Your task to perform on an android device: turn off javascript in the chrome app Image 0: 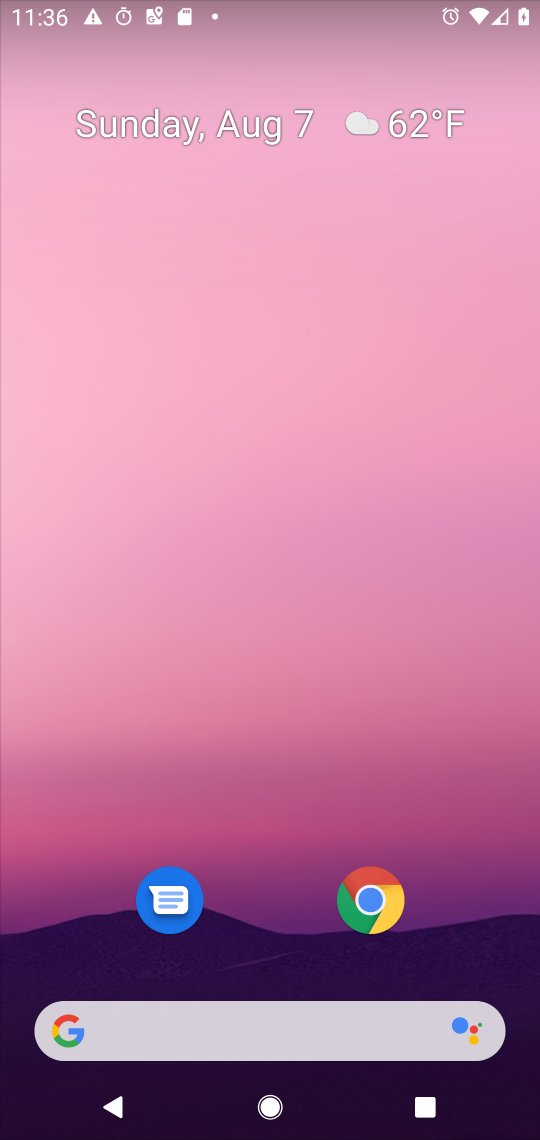
Step 0: press home button
Your task to perform on an android device: turn off javascript in the chrome app Image 1: 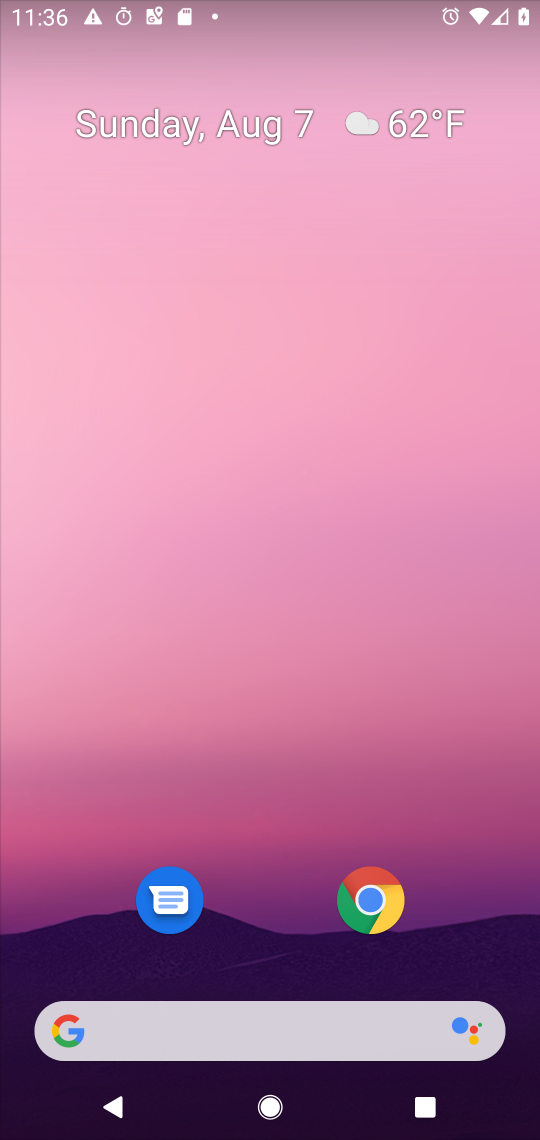
Step 1: press home button
Your task to perform on an android device: turn off javascript in the chrome app Image 2: 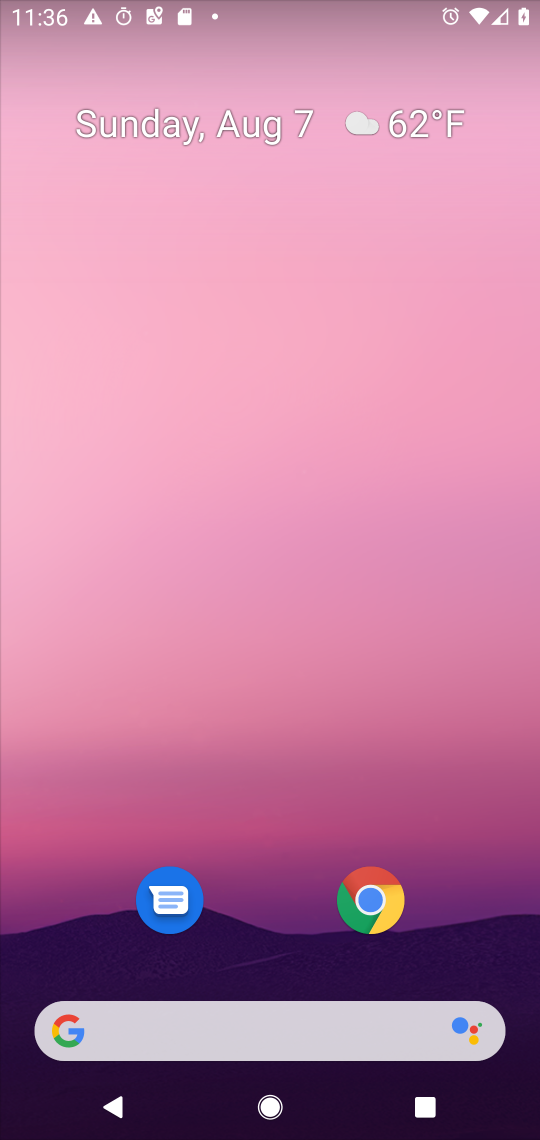
Step 2: click (388, 887)
Your task to perform on an android device: turn off javascript in the chrome app Image 3: 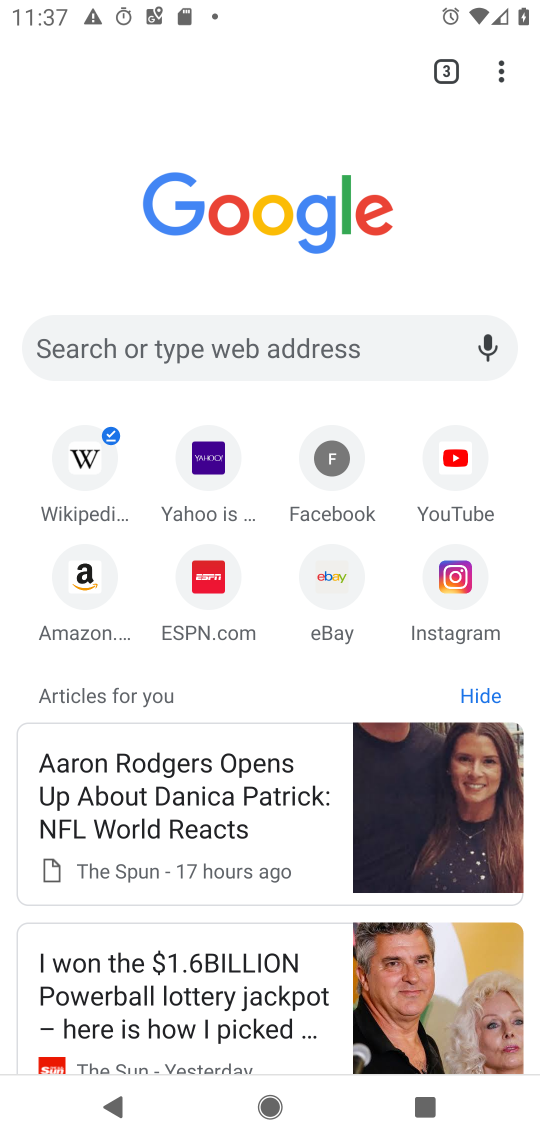
Step 3: click (495, 59)
Your task to perform on an android device: turn off javascript in the chrome app Image 4: 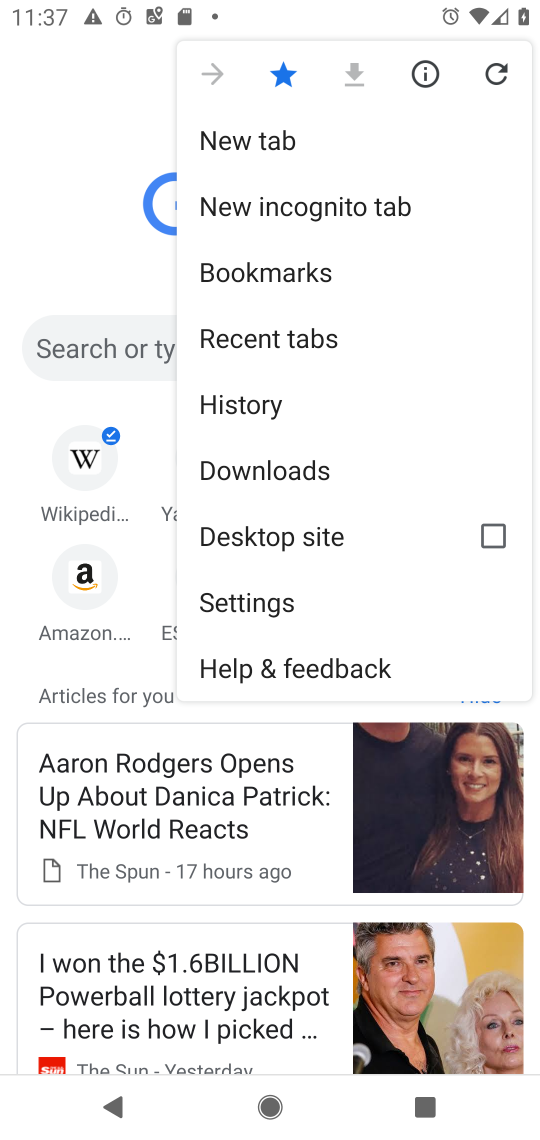
Step 4: click (281, 606)
Your task to perform on an android device: turn off javascript in the chrome app Image 5: 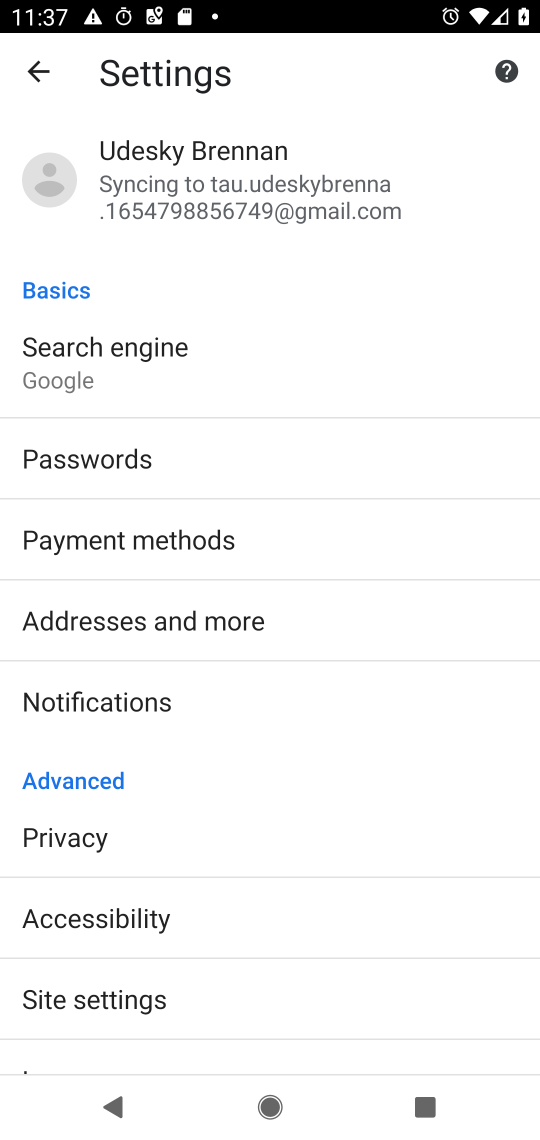
Step 5: drag from (218, 965) to (242, 250)
Your task to perform on an android device: turn off javascript in the chrome app Image 6: 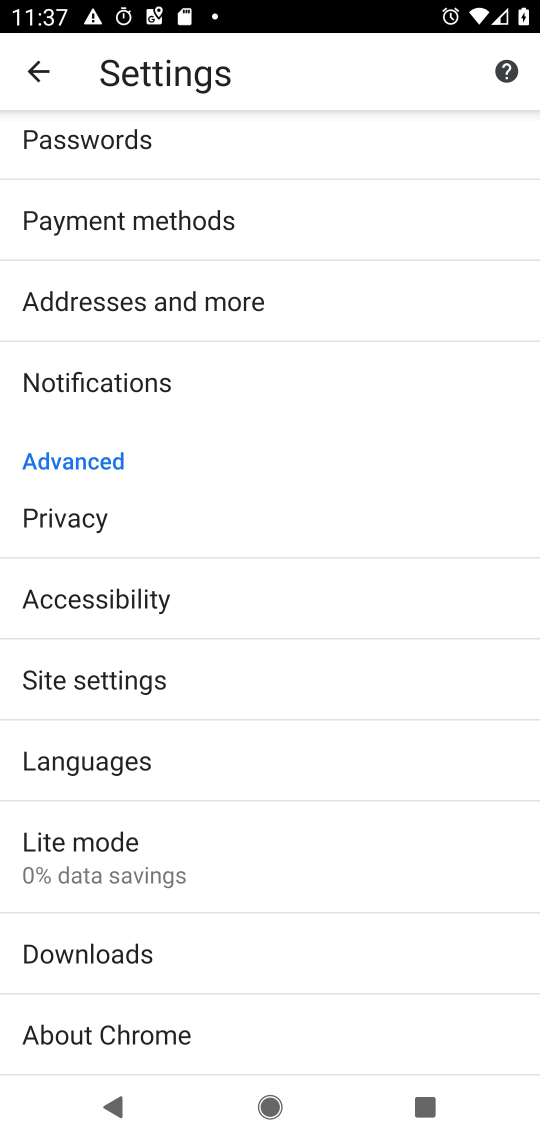
Step 6: click (167, 675)
Your task to perform on an android device: turn off javascript in the chrome app Image 7: 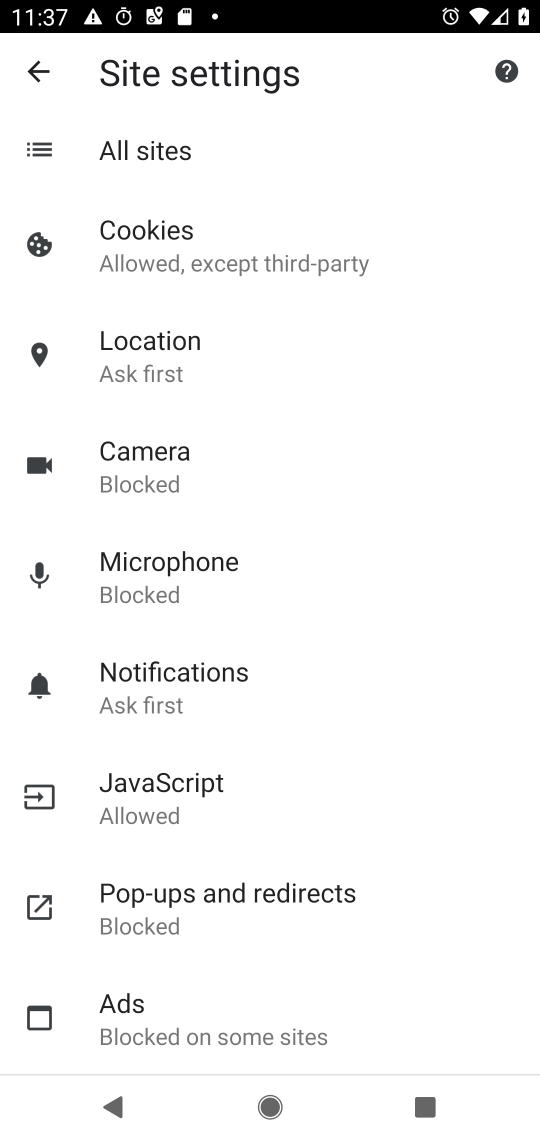
Step 7: click (185, 804)
Your task to perform on an android device: turn off javascript in the chrome app Image 8: 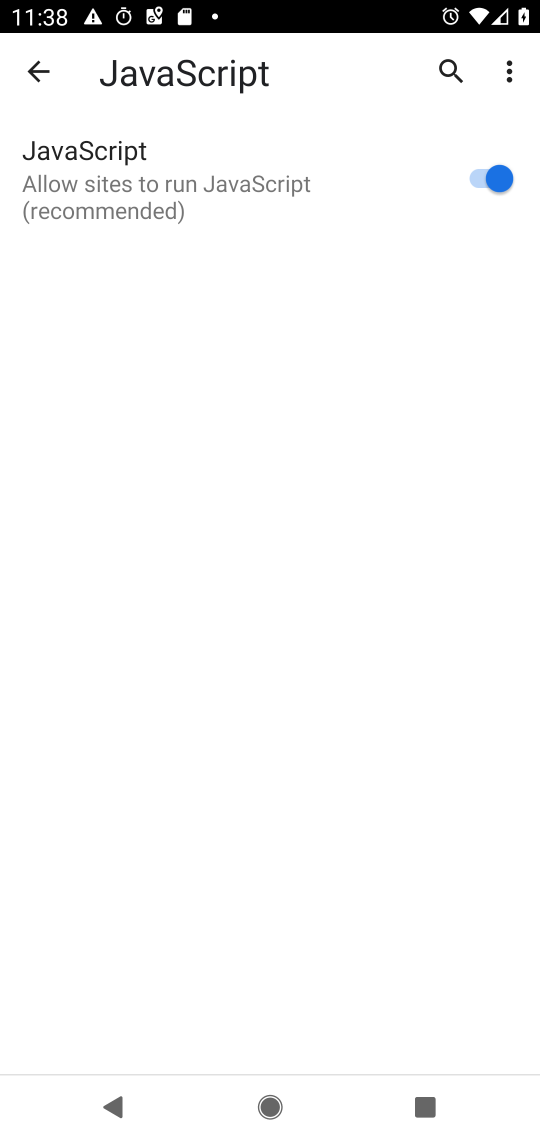
Step 8: click (481, 154)
Your task to perform on an android device: turn off javascript in the chrome app Image 9: 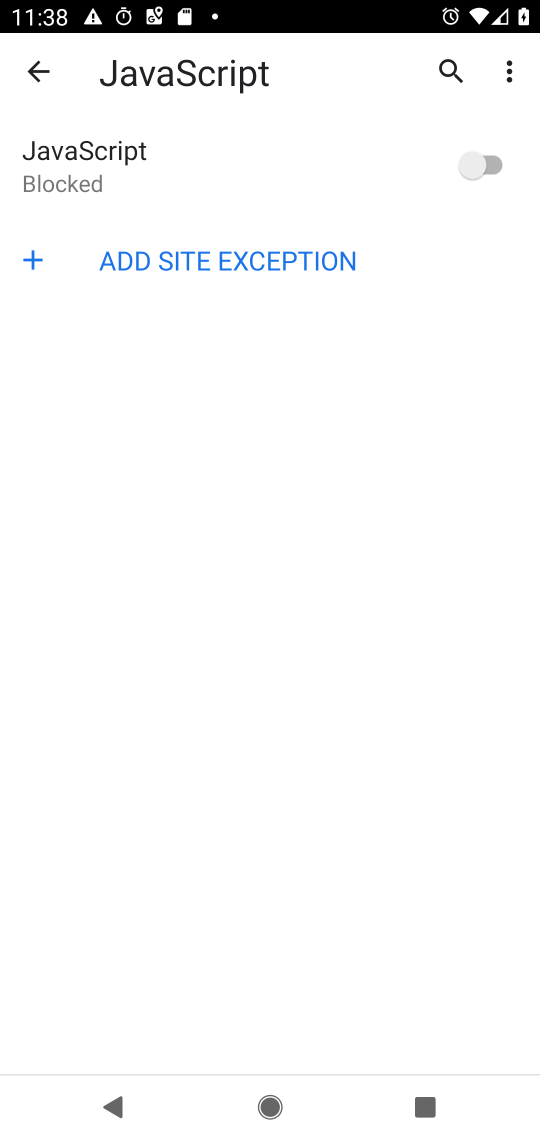
Step 9: task complete